Your task to perform on an android device: check the backup settings in the google photos Image 0: 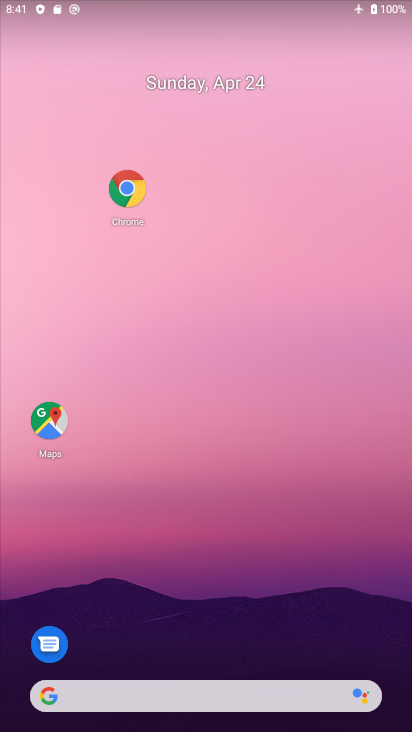
Step 0: drag from (215, 492) to (223, 97)
Your task to perform on an android device: check the backup settings in the google photos Image 1: 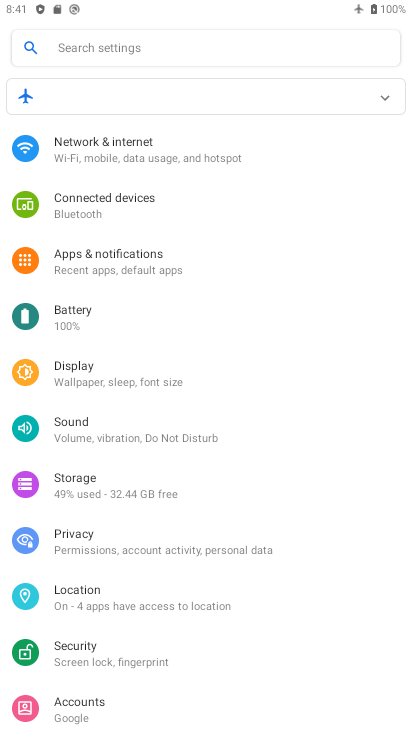
Step 1: drag from (187, 593) to (260, 228)
Your task to perform on an android device: check the backup settings in the google photos Image 2: 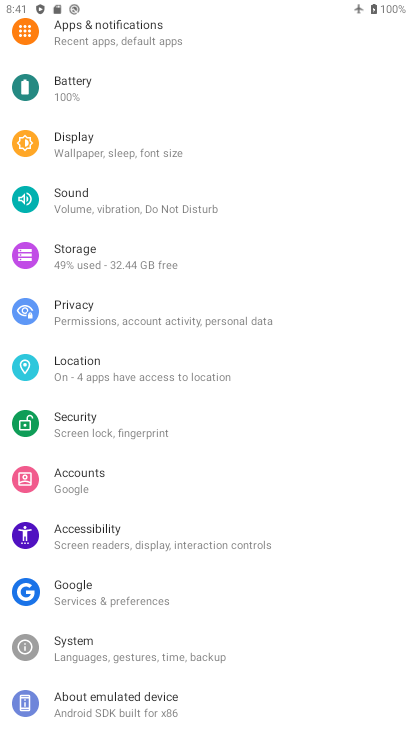
Step 2: press home button
Your task to perform on an android device: check the backup settings in the google photos Image 3: 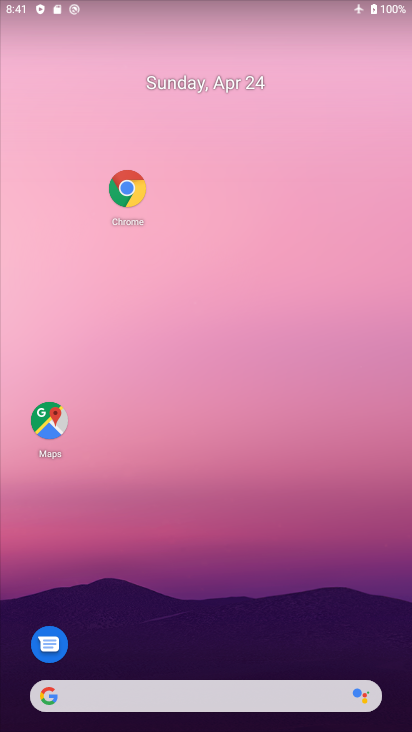
Step 3: drag from (212, 659) to (212, 226)
Your task to perform on an android device: check the backup settings in the google photos Image 4: 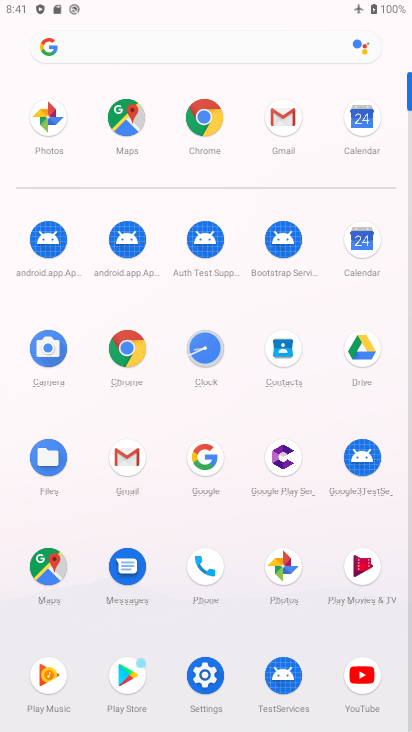
Step 4: click (267, 569)
Your task to perform on an android device: check the backup settings in the google photos Image 5: 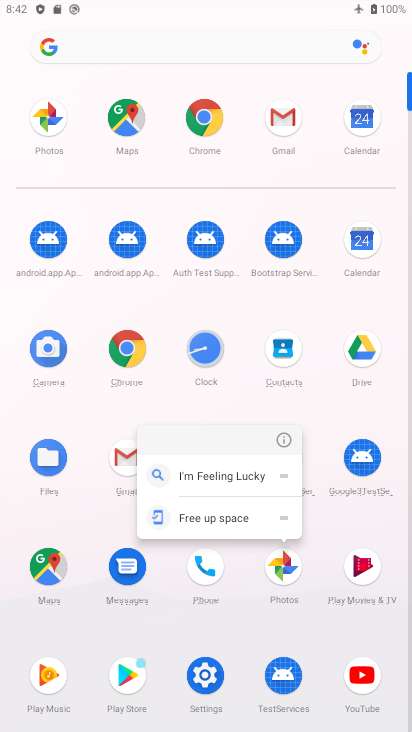
Step 5: click (277, 432)
Your task to perform on an android device: check the backup settings in the google photos Image 6: 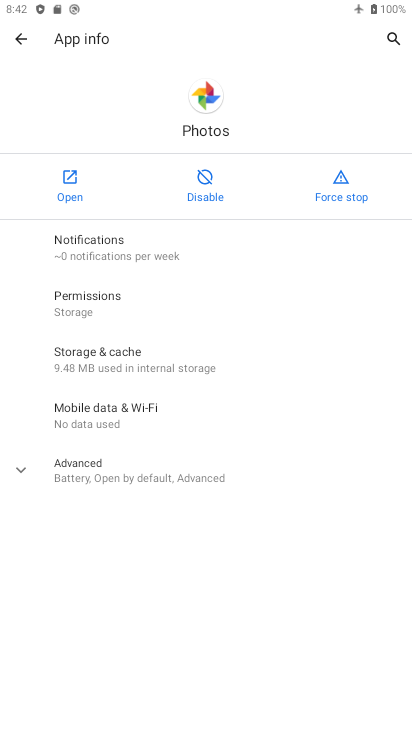
Step 6: click (57, 174)
Your task to perform on an android device: check the backup settings in the google photos Image 7: 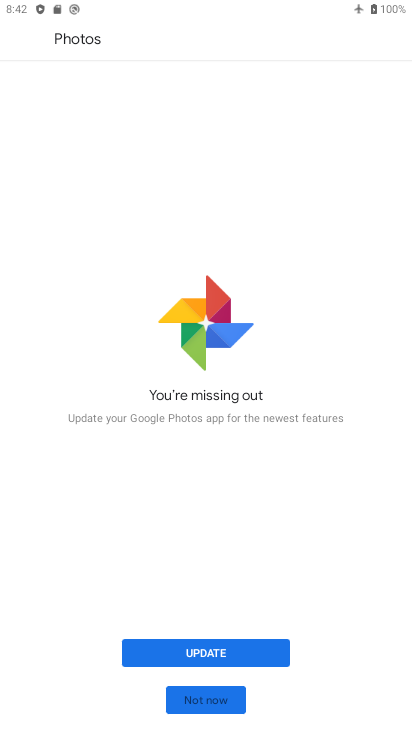
Step 7: click (204, 699)
Your task to perform on an android device: check the backup settings in the google photos Image 8: 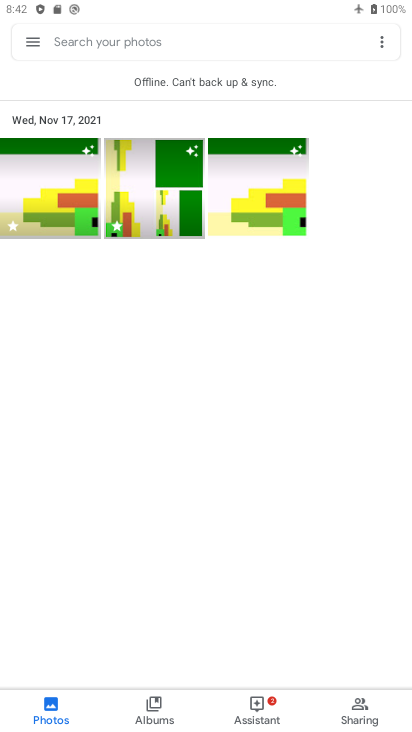
Step 8: click (20, 52)
Your task to perform on an android device: check the backup settings in the google photos Image 9: 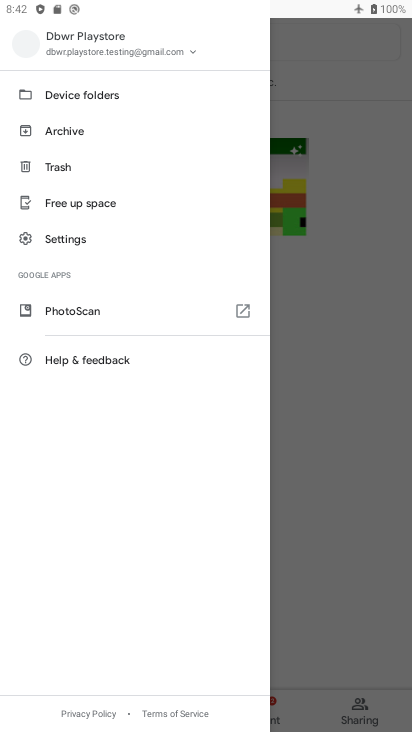
Step 9: click (66, 239)
Your task to perform on an android device: check the backup settings in the google photos Image 10: 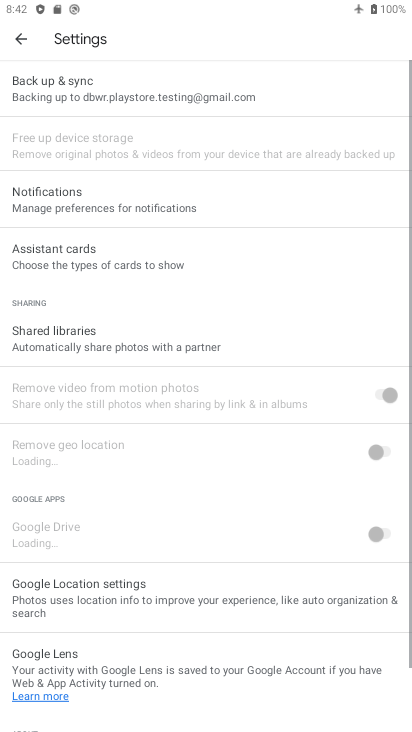
Step 10: click (178, 91)
Your task to perform on an android device: check the backup settings in the google photos Image 11: 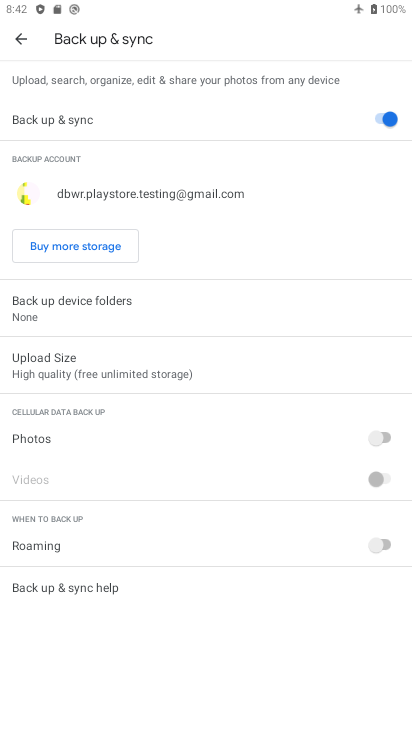
Step 11: task complete